Your task to perform on an android device: Show me productivity apps on the Play Store Image 0: 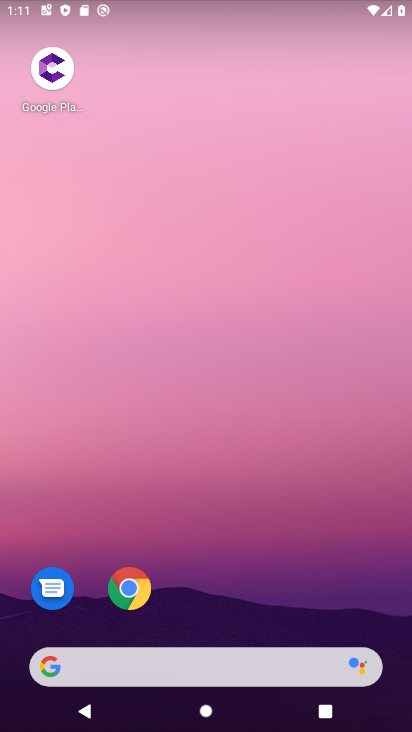
Step 0: drag from (75, 558) to (293, 176)
Your task to perform on an android device: Show me productivity apps on the Play Store Image 1: 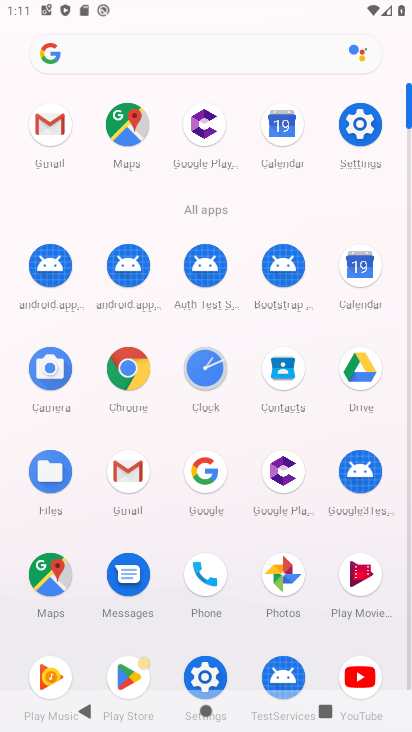
Step 1: click (137, 665)
Your task to perform on an android device: Show me productivity apps on the Play Store Image 2: 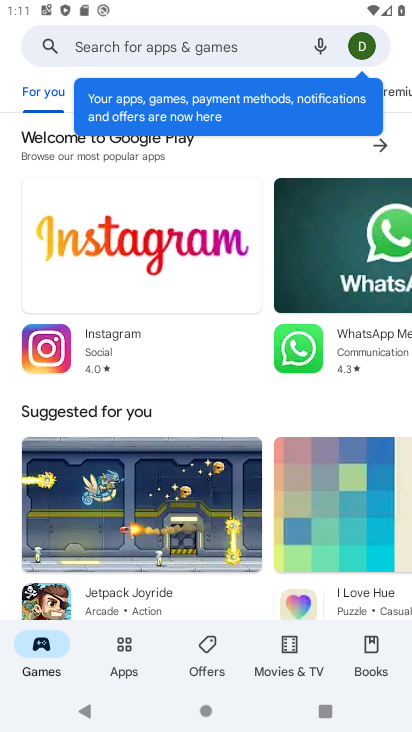
Step 2: click (120, 40)
Your task to perform on an android device: Show me productivity apps on the Play Store Image 3: 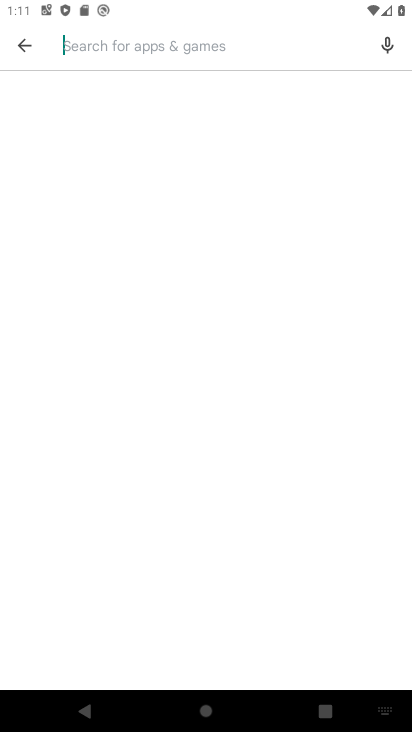
Step 3: type "productivity apps"
Your task to perform on an android device: Show me productivity apps on the Play Store Image 4: 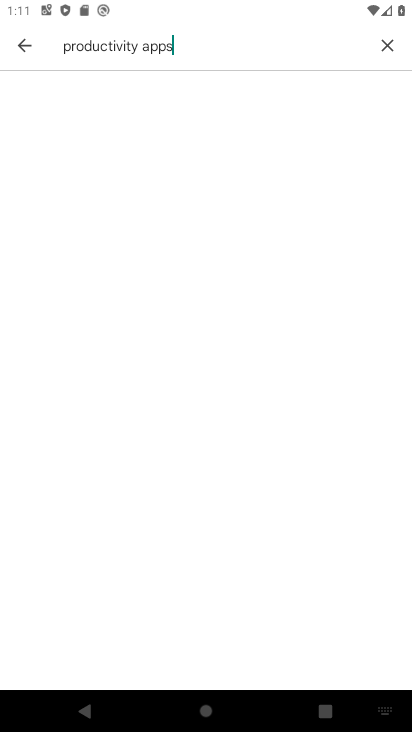
Step 4: type ""
Your task to perform on an android device: Show me productivity apps on the Play Store Image 5: 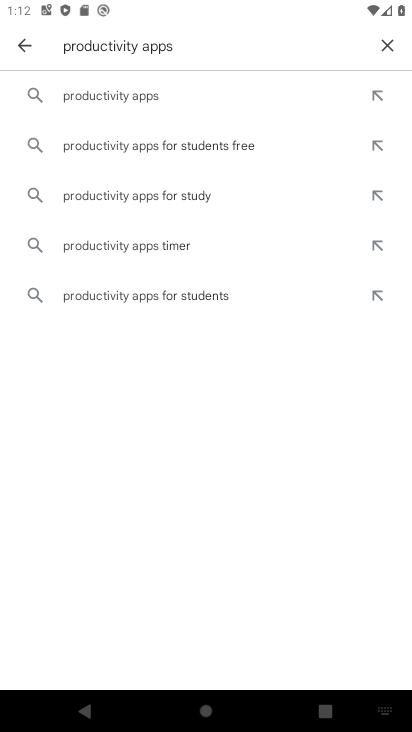
Step 5: click (112, 90)
Your task to perform on an android device: Show me productivity apps on the Play Store Image 6: 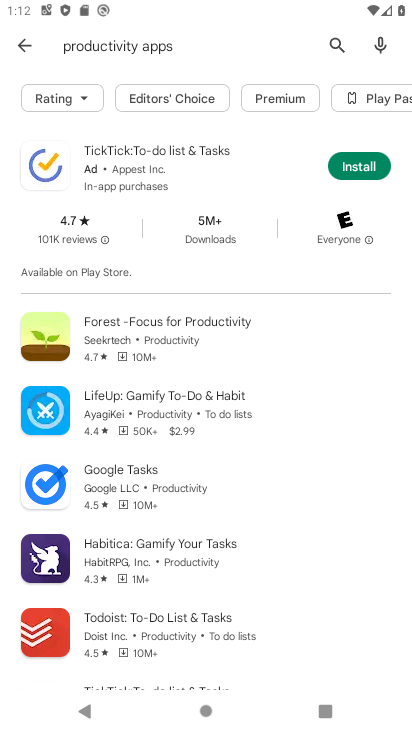
Step 6: task complete